Your task to perform on an android device: Go to Yahoo.com Image 0: 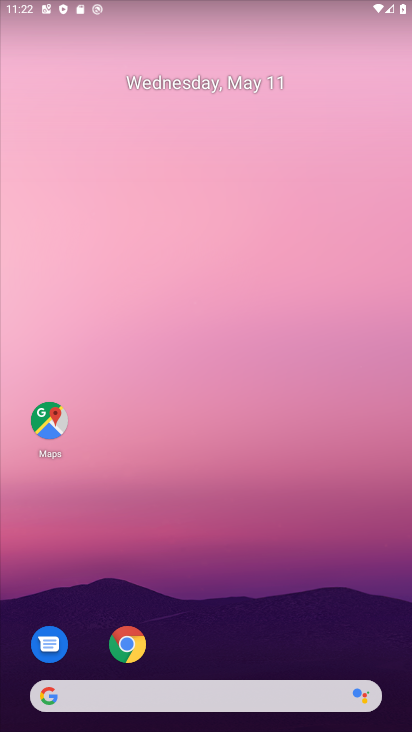
Step 0: click (126, 640)
Your task to perform on an android device: Go to Yahoo.com Image 1: 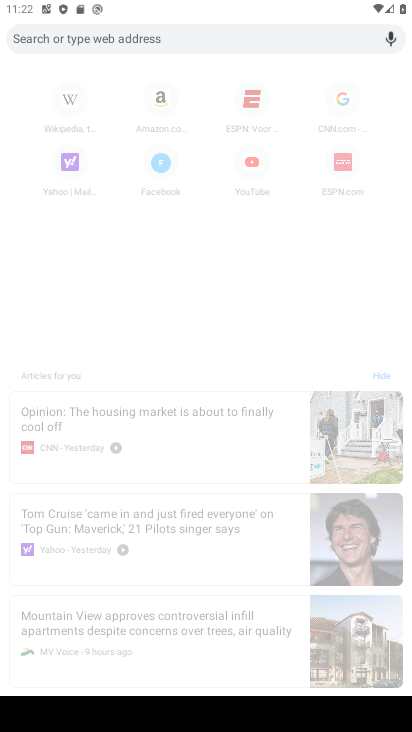
Step 1: type "yahoo.com"
Your task to perform on an android device: Go to Yahoo.com Image 2: 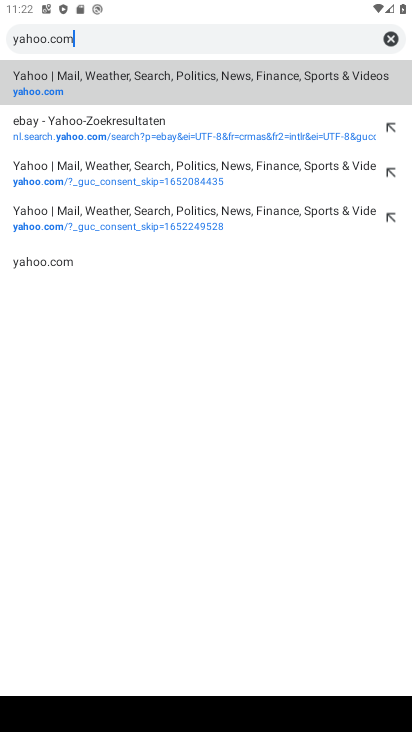
Step 2: click (284, 99)
Your task to perform on an android device: Go to Yahoo.com Image 3: 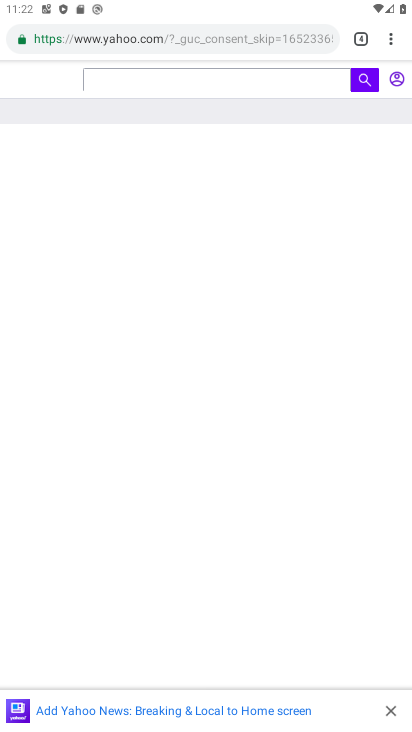
Step 3: task complete